Your task to perform on an android device: snooze an email in the gmail app Image 0: 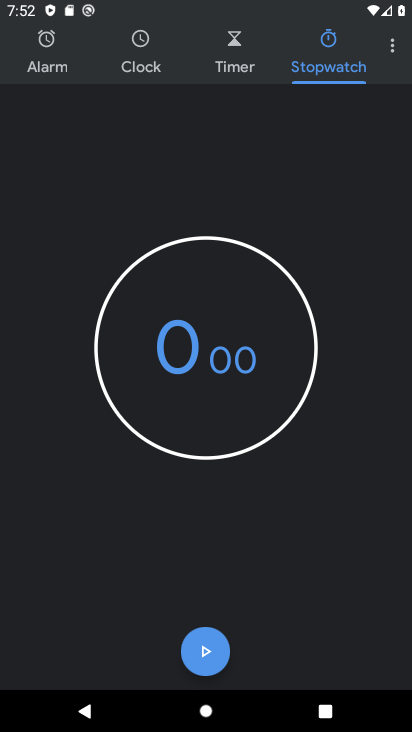
Step 0: press home button
Your task to perform on an android device: snooze an email in the gmail app Image 1: 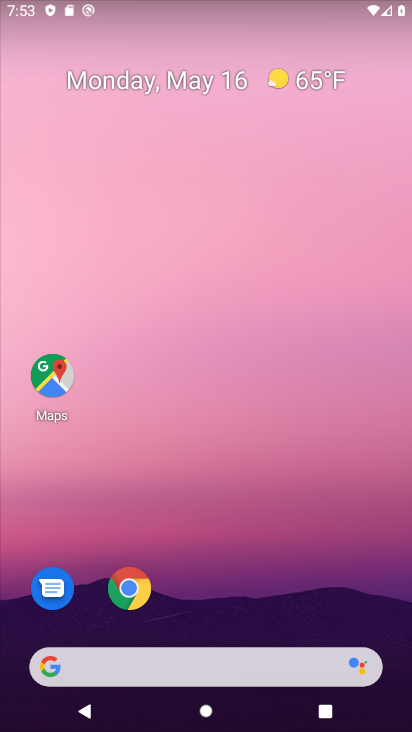
Step 1: drag from (364, 592) to (360, 96)
Your task to perform on an android device: snooze an email in the gmail app Image 2: 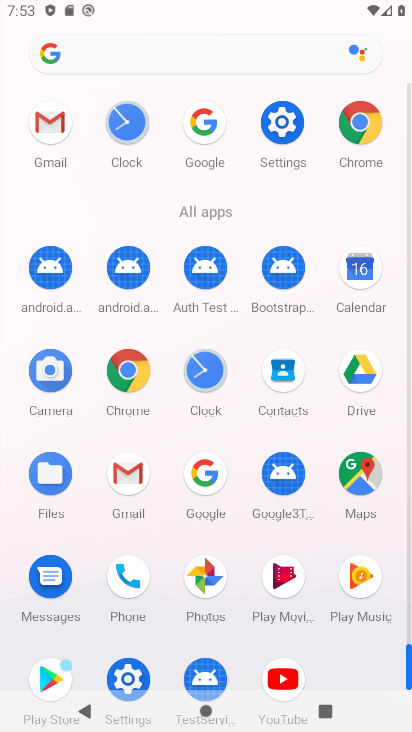
Step 2: click (119, 479)
Your task to perform on an android device: snooze an email in the gmail app Image 3: 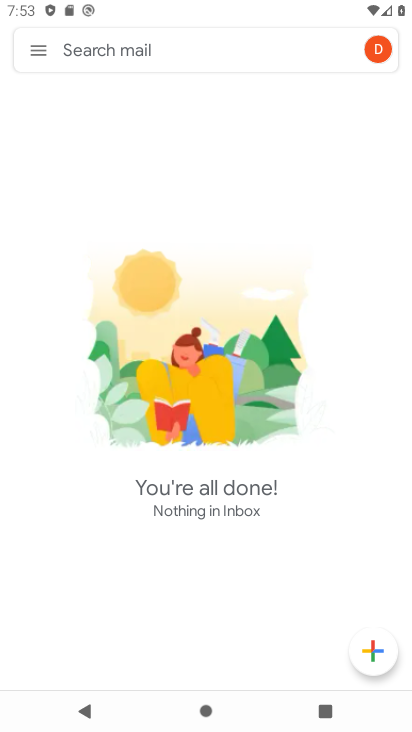
Step 3: click (41, 50)
Your task to perform on an android device: snooze an email in the gmail app Image 4: 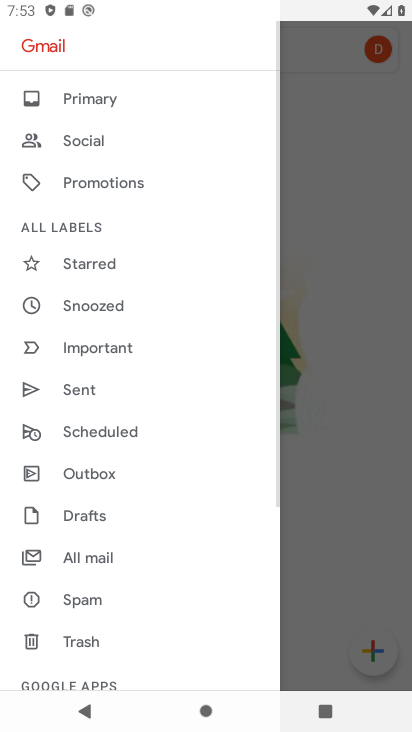
Step 4: drag from (199, 566) to (216, 414)
Your task to perform on an android device: snooze an email in the gmail app Image 5: 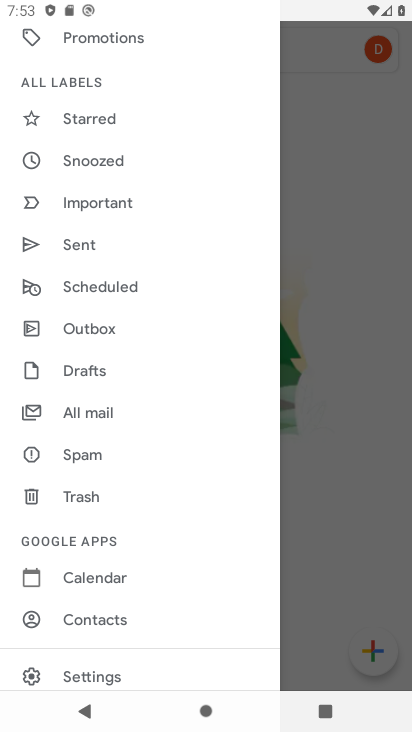
Step 5: drag from (192, 604) to (199, 476)
Your task to perform on an android device: snooze an email in the gmail app Image 6: 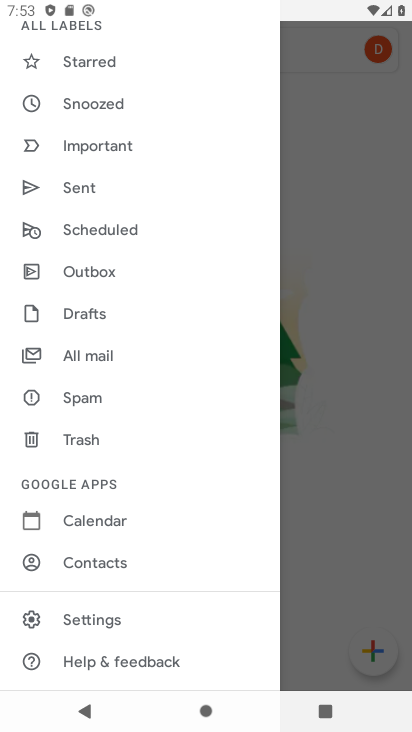
Step 6: drag from (202, 607) to (206, 461)
Your task to perform on an android device: snooze an email in the gmail app Image 7: 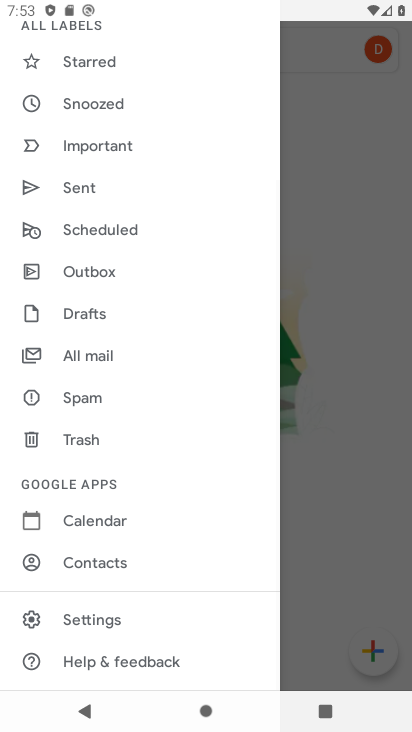
Step 7: drag from (205, 255) to (198, 436)
Your task to perform on an android device: snooze an email in the gmail app Image 8: 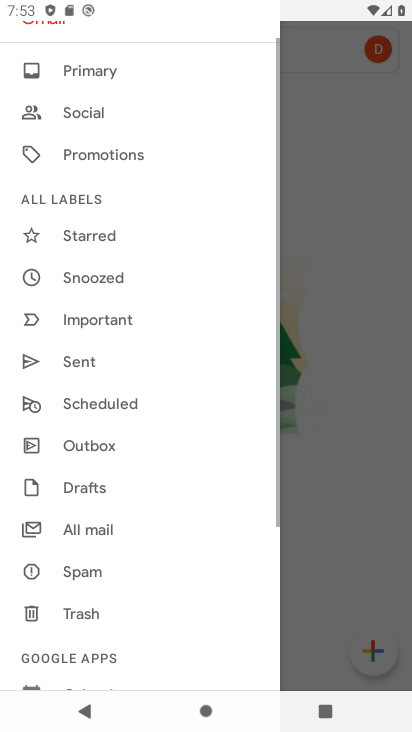
Step 8: drag from (224, 276) to (220, 416)
Your task to perform on an android device: snooze an email in the gmail app Image 9: 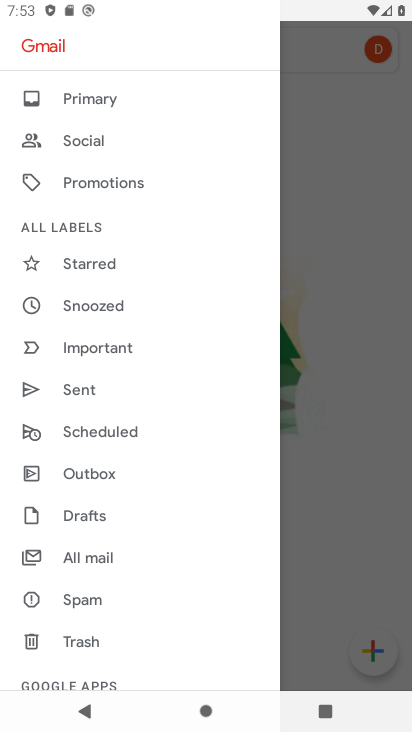
Step 9: drag from (209, 236) to (202, 415)
Your task to perform on an android device: snooze an email in the gmail app Image 10: 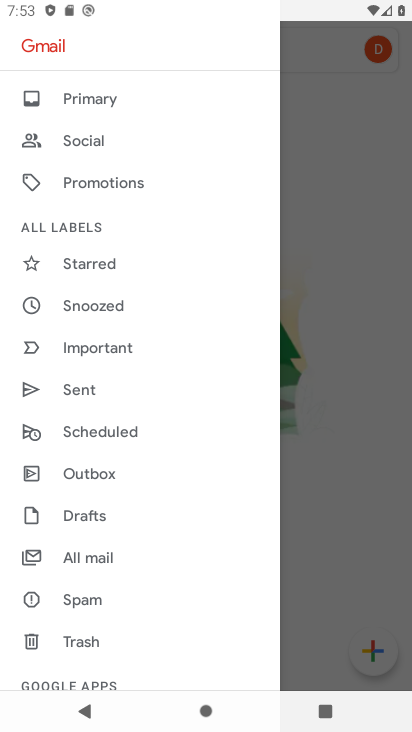
Step 10: drag from (202, 594) to (209, 431)
Your task to perform on an android device: snooze an email in the gmail app Image 11: 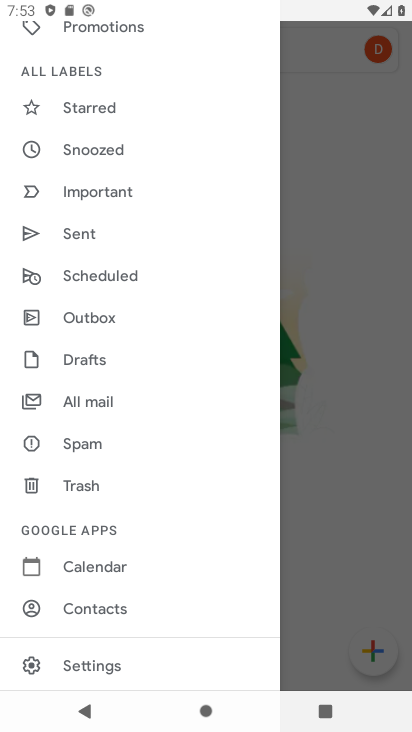
Step 11: drag from (204, 231) to (203, 412)
Your task to perform on an android device: snooze an email in the gmail app Image 12: 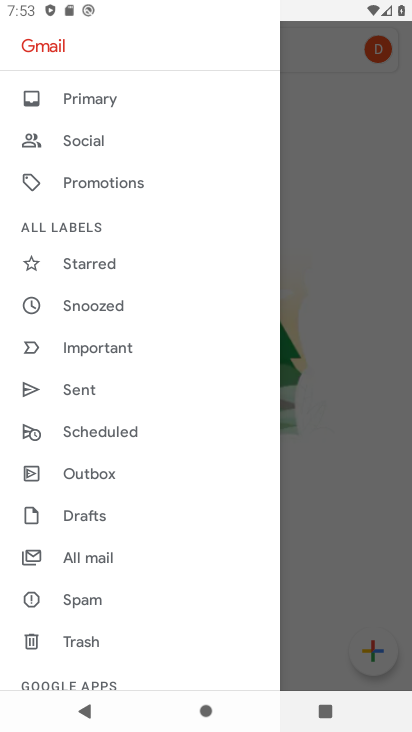
Step 12: click (127, 298)
Your task to perform on an android device: snooze an email in the gmail app Image 13: 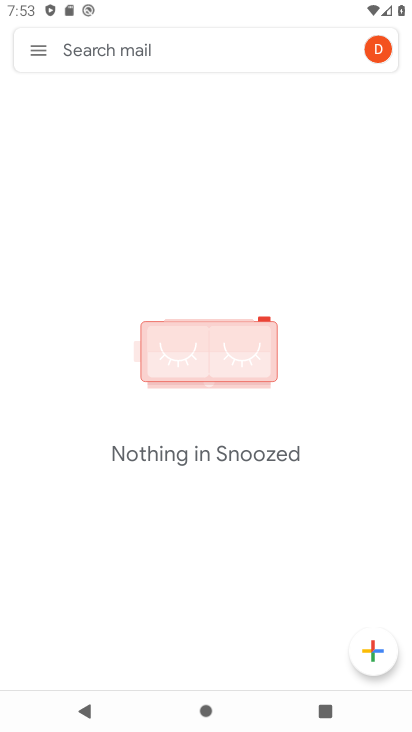
Step 13: task complete